Your task to perform on an android device: Go to privacy settings Image 0: 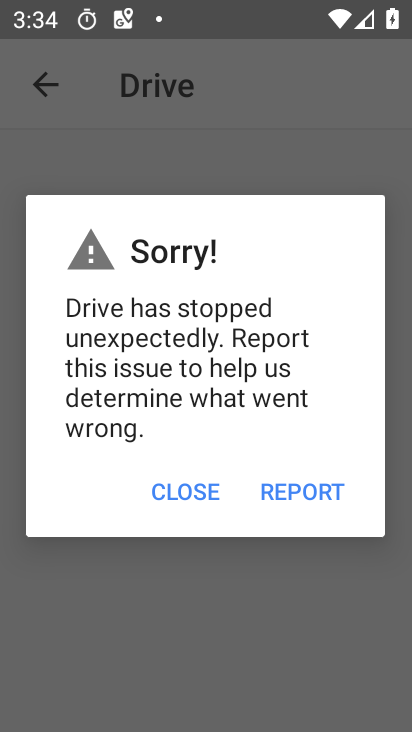
Step 0: press home button
Your task to perform on an android device: Go to privacy settings Image 1: 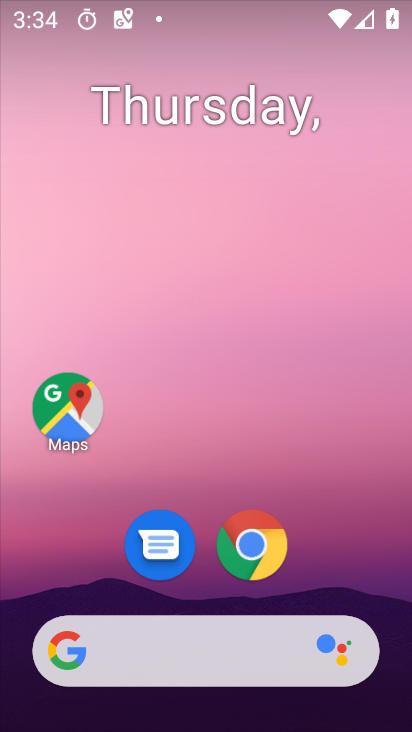
Step 1: drag from (216, 726) to (217, 277)
Your task to perform on an android device: Go to privacy settings Image 2: 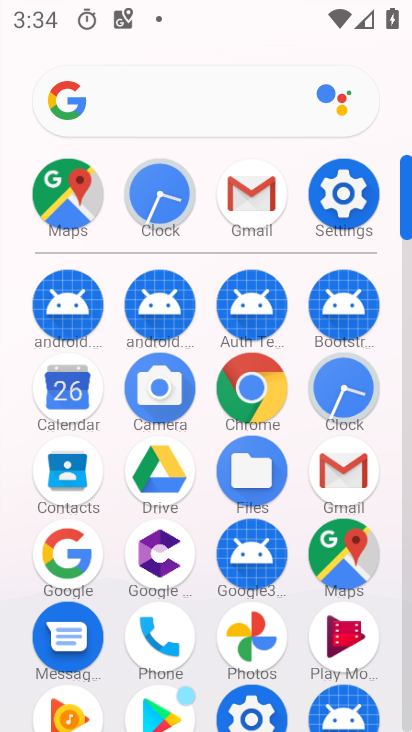
Step 2: click (350, 197)
Your task to perform on an android device: Go to privacy settings Image 3: 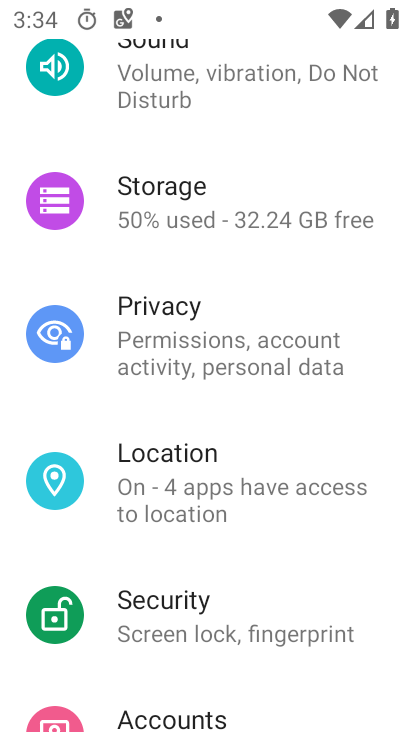
Step 3: click (184, 343)
Your task to perform on an android device: Go to privacy settings Image 4: 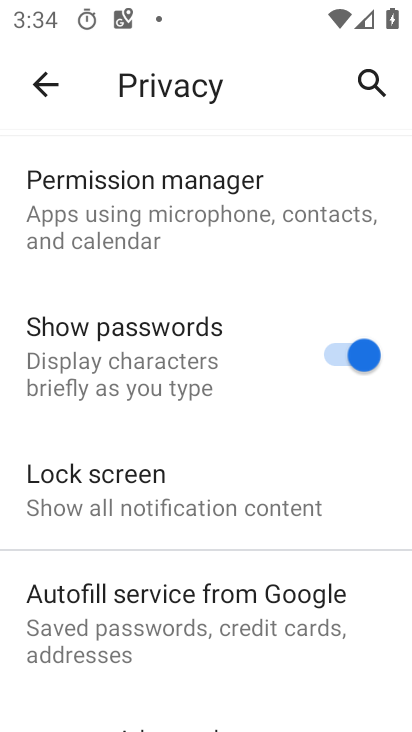
Step 4: task complete